Your task to perform on an android device: add a contact Image 0: 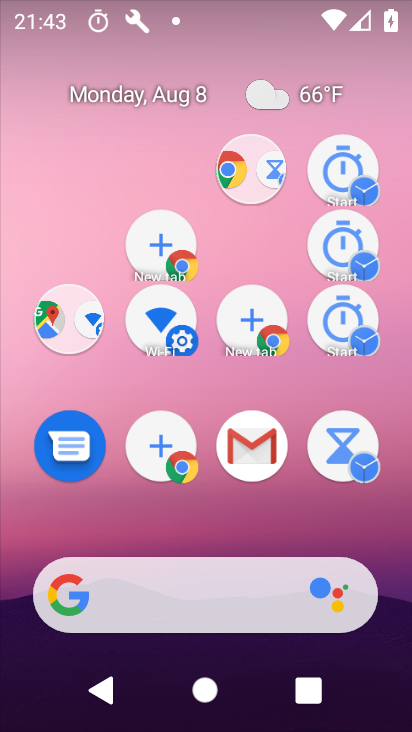
Step 0: drag from (276, 651) to (262, 238)
Your task to perform on an android device: add a contact Image 1: 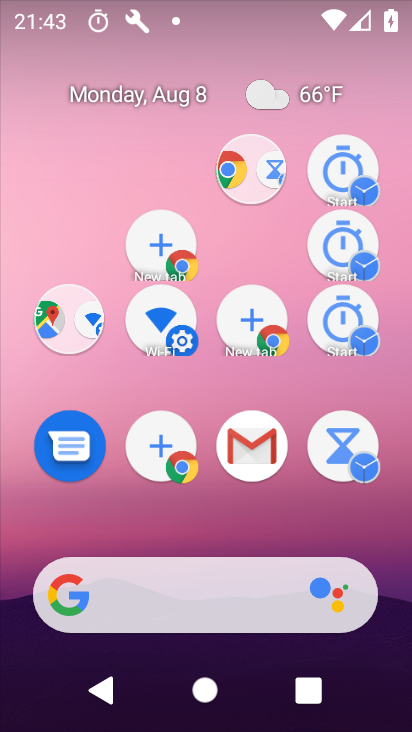
Step 1: drag from (246, 432) to (214, 170)
Your task to perform on an android device: add a contact Image 2: 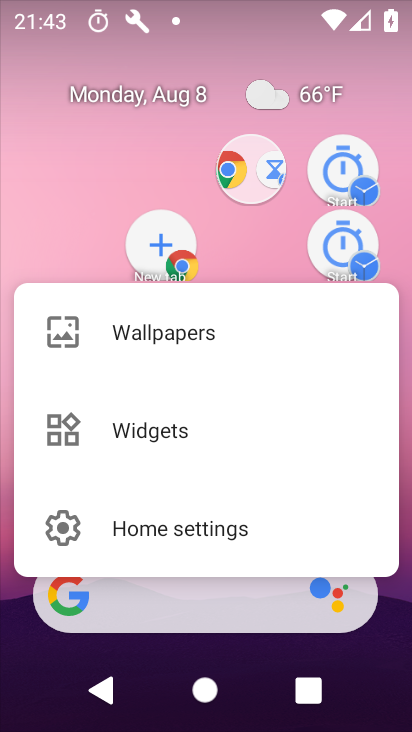
Step 2: click (84, 191)
Your task to perform on an android device: add a contact Image 3: 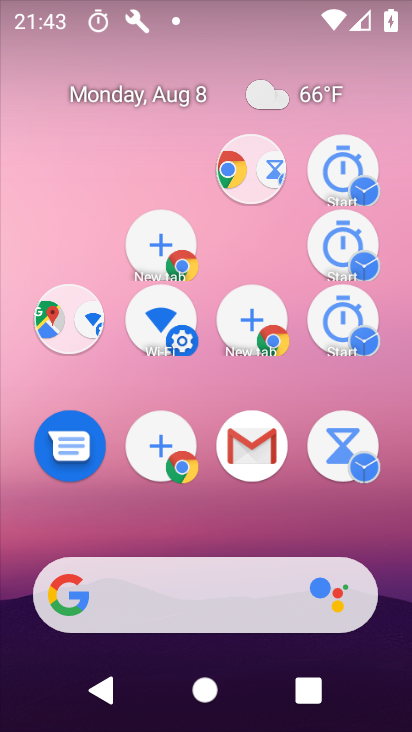
Step 3: click (83, 191)
Your task to perform on an android device: add a contact Image 4: 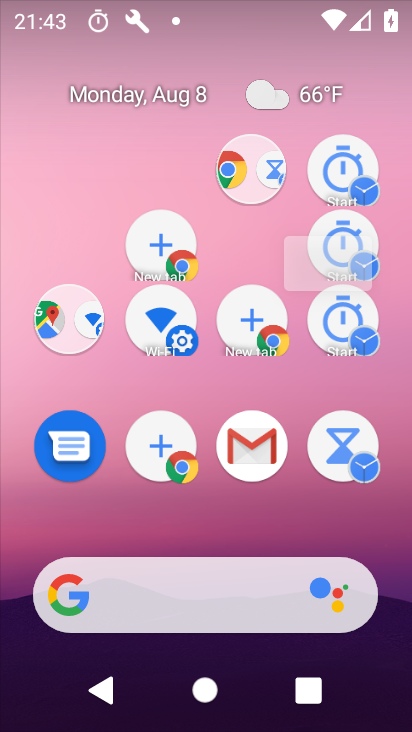
Step 4: drag from (255, 581) to (199, 55)
Your task to perform on an android device: add a contact Image 5: 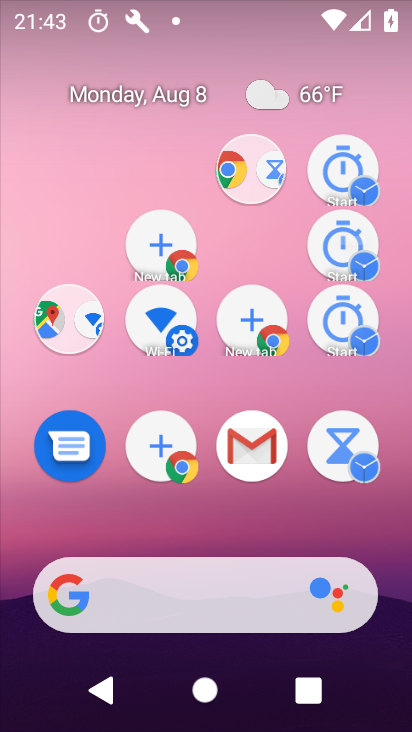
Step 5: drag from (275, 461) to (265, 148)
Your task to perform on an android device: add a contact Image 6: 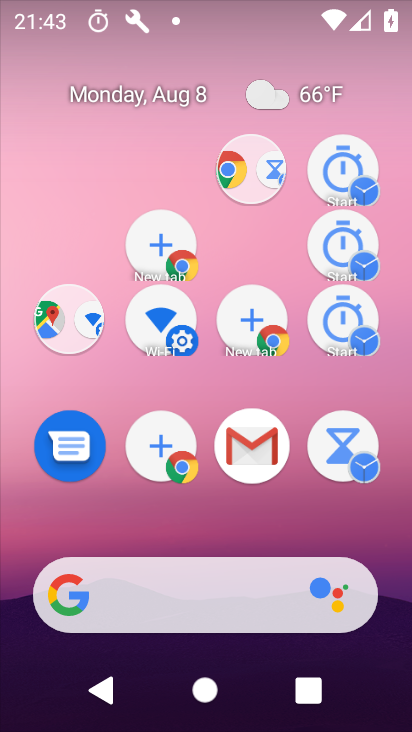
Step 6: click (229, 63)
Your task to perform on an android device: add a contact Image 7: 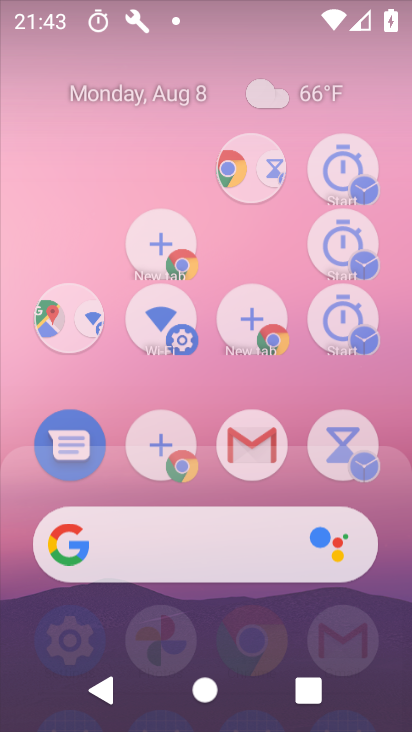
Step 7: drag from (214, 284) to (212, 64)
Your task to perform on an android device: add a contact Image 8: 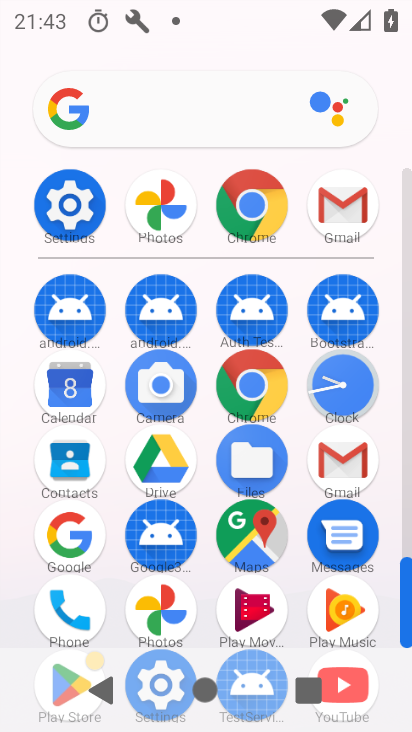
Step 8: click (67, 458)
Your task to perform on an android device: add a contact Image 9: 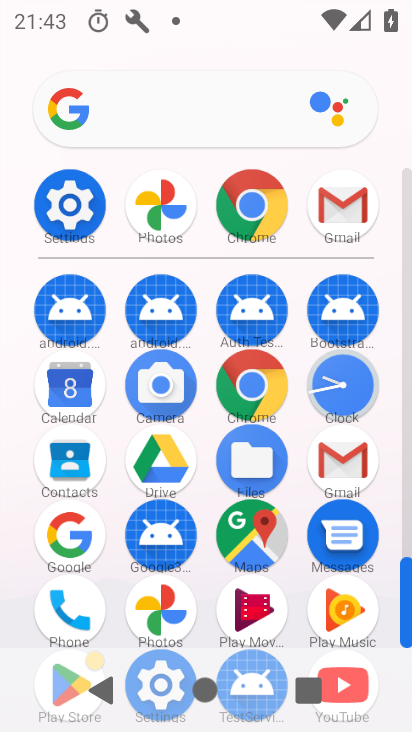
Step 9: click (67, 458)
Your task to perform on an android device: add a contact Image 10: 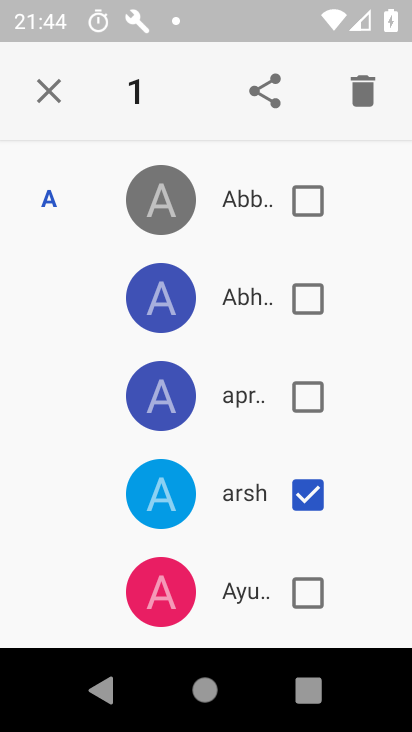
Step 10: click (47, 97)
Your task to perform on an android device: add a contact Image 11: 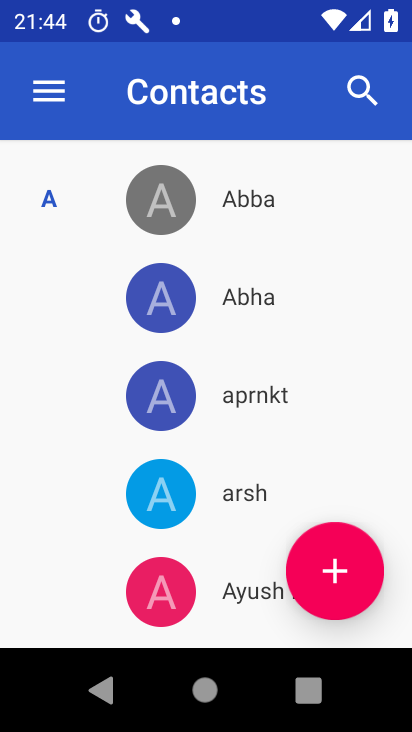
Step 11: click (339, 590)
Your task to perform on an android device: add a contact Image 12: 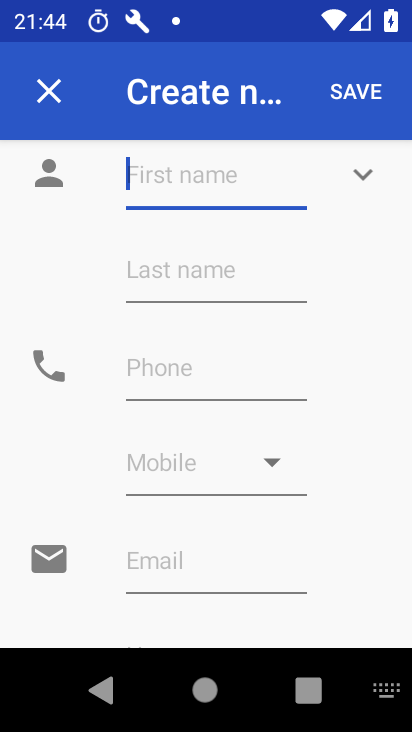
Step 12: type "v jjn nj njnj"
Your task to perform on an android device: add a contact Image 13: 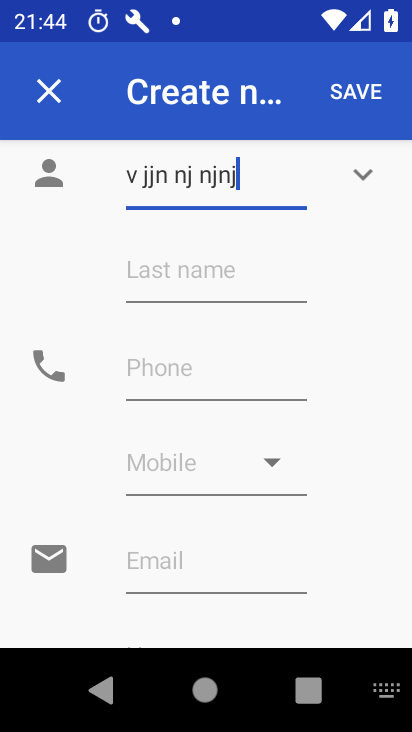
Step 13: click (144, 373)
Your task to perform on an android device: add a contact Image 14: 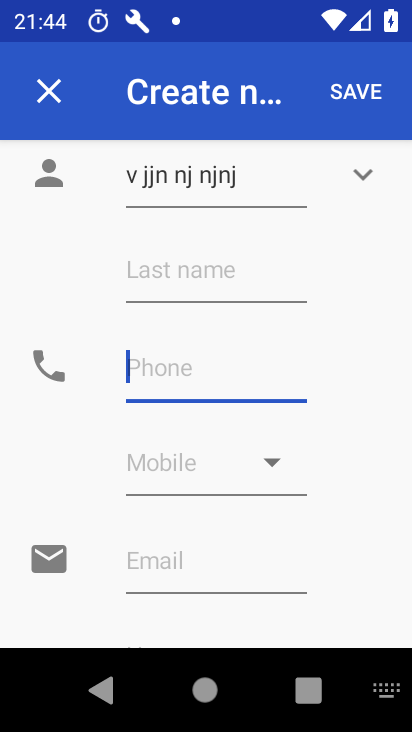
Step 14: click (153, 369)
Your task to perform on an android device: add a contact Image 15: 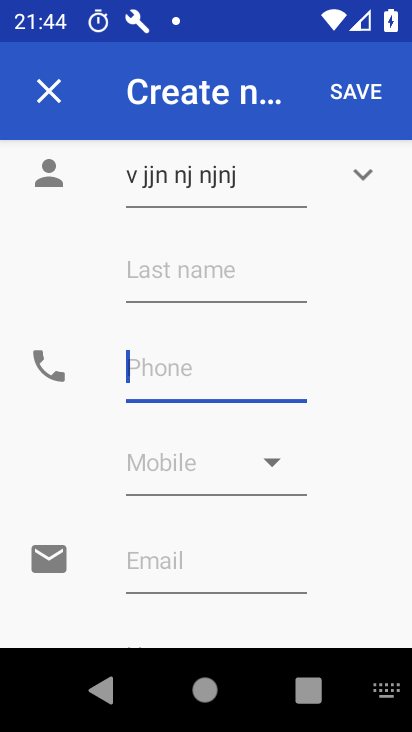
Step 15: type "765674574365873468"
Your task to perform on an android device: add a contact Image 16: 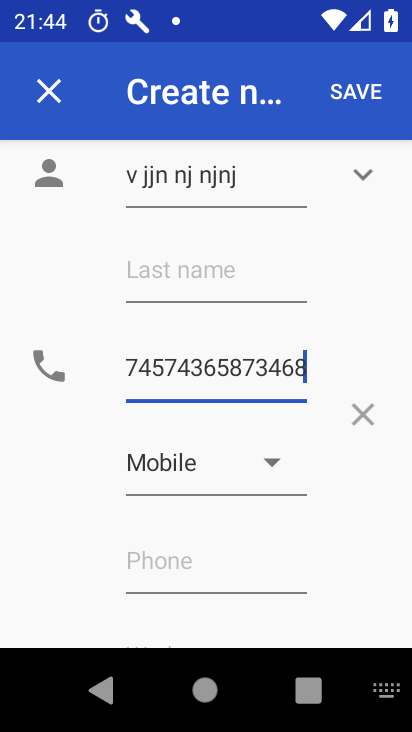
Step 16: click (361, 111)
Your task to perform on an android device: add a contact Image 17: 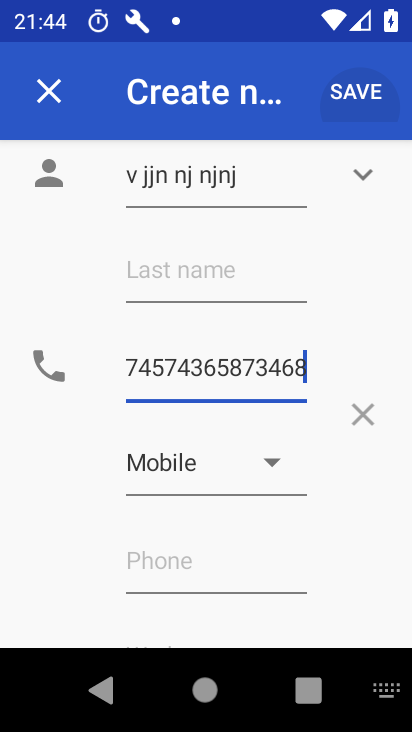
Step 17: click (363, 106)
Your task to perform on an android device: add a contact Image 18: 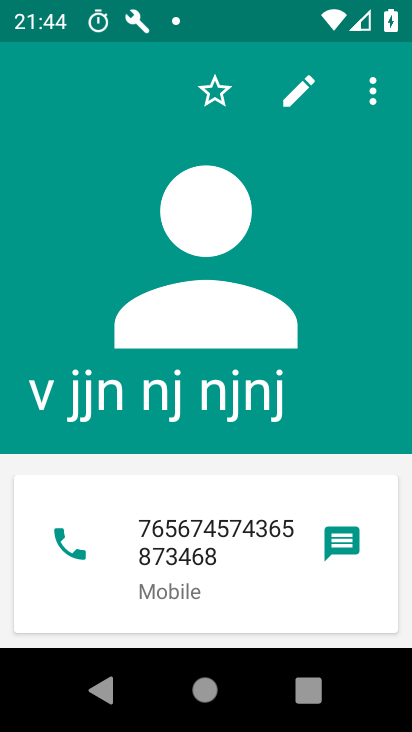
Step 18: task complete